Your task to perform on an android device: Open the web browser Image 0: 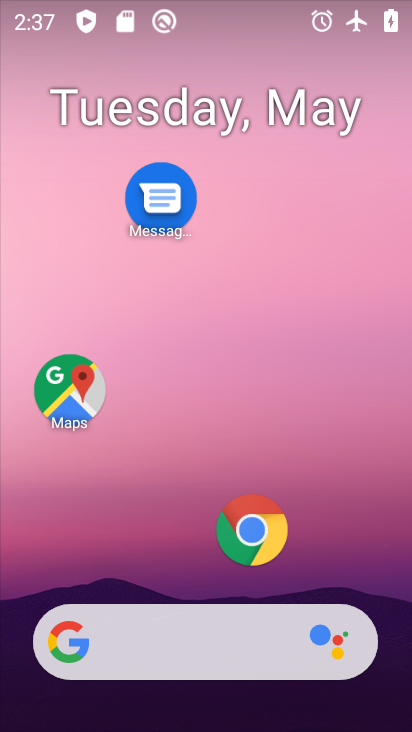
Step 0: click (252, 543)
Your task to perform on an android device: Open the web browser Image 1: 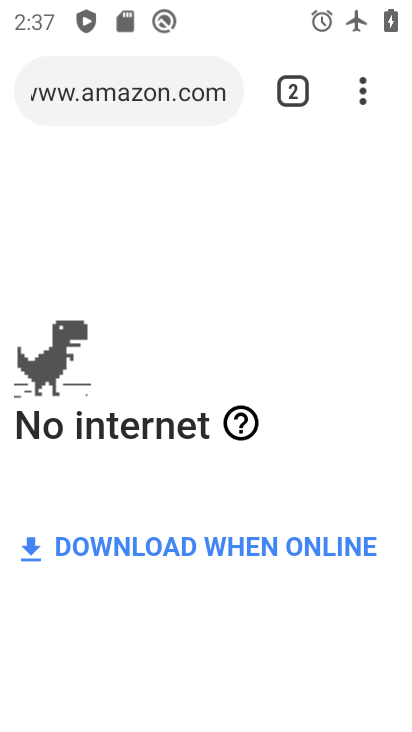
Step 1: task complete